Your task to perform on an android device: turn on translation in the chrome app Image 0: 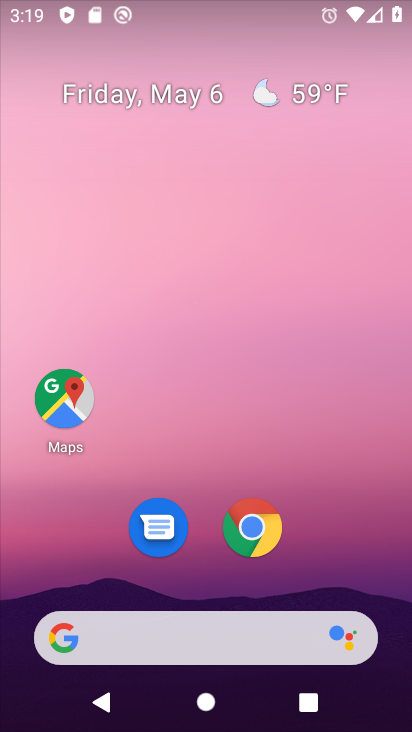
Step 0: drag from (333, 547) to (298, 97)
Your task to perform on an android device: turn on translation in the chrome app Image 1: 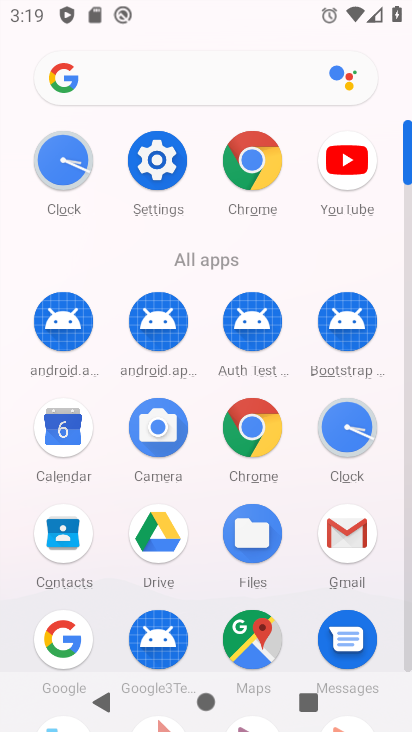
Step 1: click (245, 450)
Your task to perform on an android device: turn on translation in the chrome app Image 2: 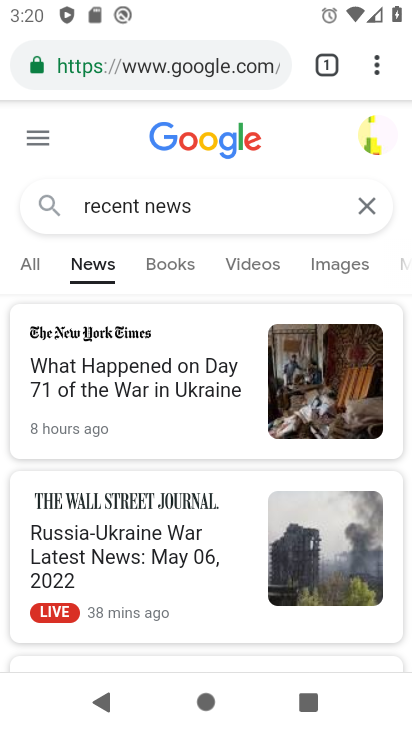
Step 2: drag from (381, 61) to (197, 582)
Your task to perform on an android device: turn on translation in the chrome app Image 3: 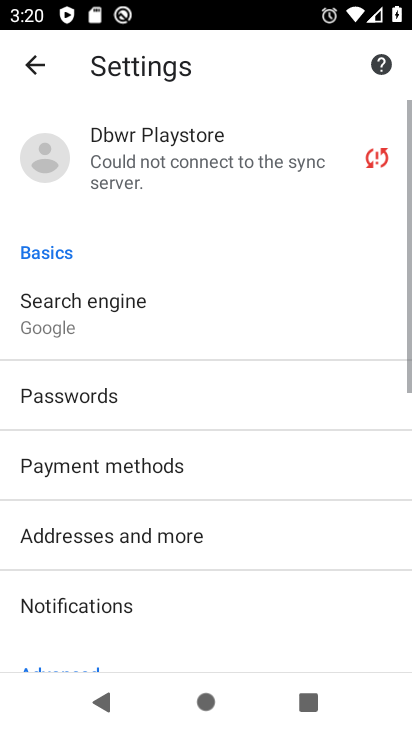
Step 3: drag from (193, 580) to (300, 114)
Your task to perform on an android device: turn on translation in the chrome app Image 4: 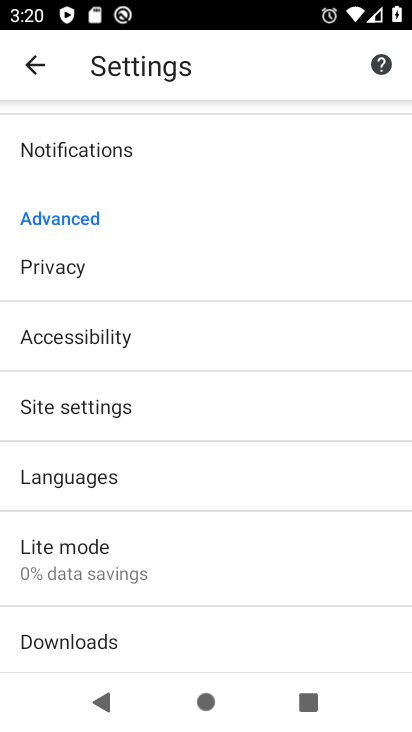
Step 4: click (120, 146)
Your task to perform on an android device: turn on translation in the chrome app Image 5: 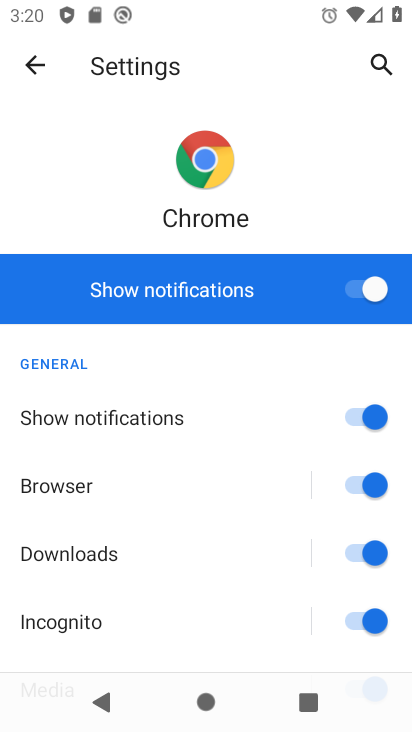
Step 5: click (26, 64)
Your task to perform on an android device: turn on translation in the chrome app Image 6: 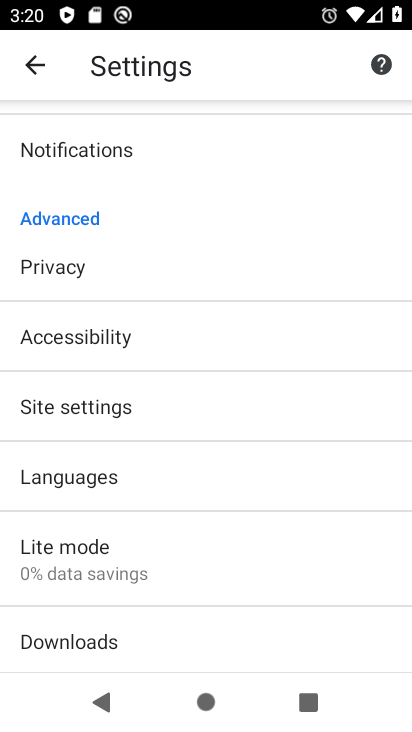
Step 6: click (101, 471)
Your task to perform on an android device: turn on translation in the chrome app Image 7: 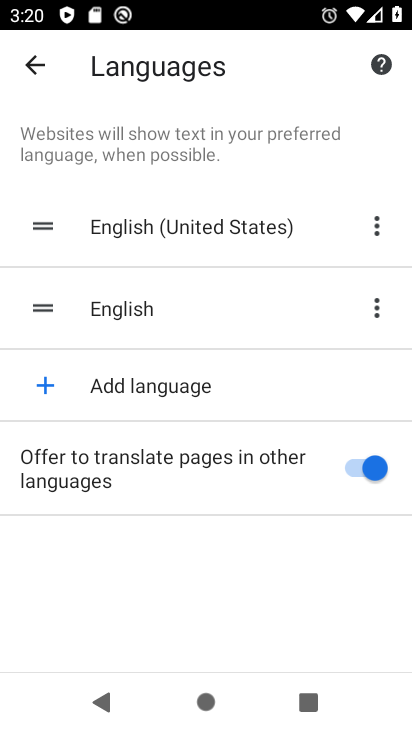
Step 7: task complete